Your task to perform on an android device: Go to location settings Image 0: 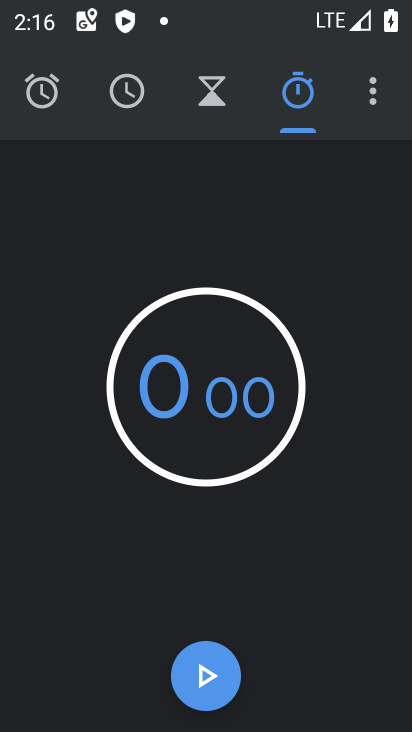
Step 0: press home button
Your task to perform on an android device: Go to location settings Image 1: 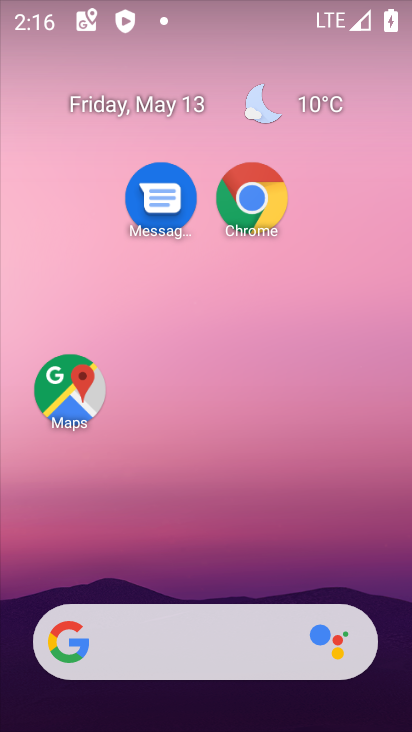
Step 1: drag from (196, 582) to (329, 591)
Your task to perform on an android device: Go to location settings Image 2: 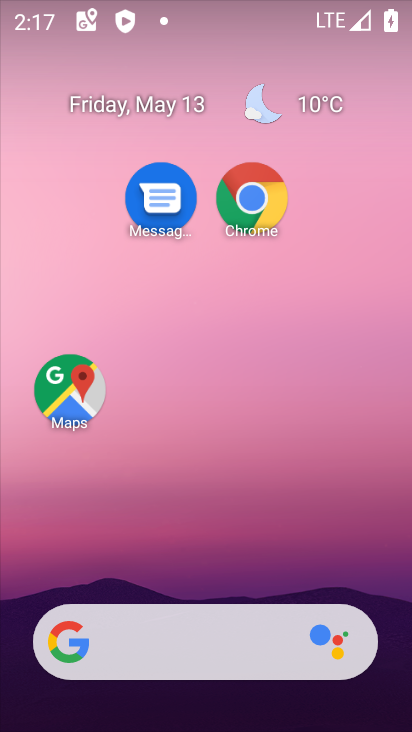
Step 2: drag from (205, 570) to (242, 1)
Your task to perform on an android device: Go to location settings Image 3: 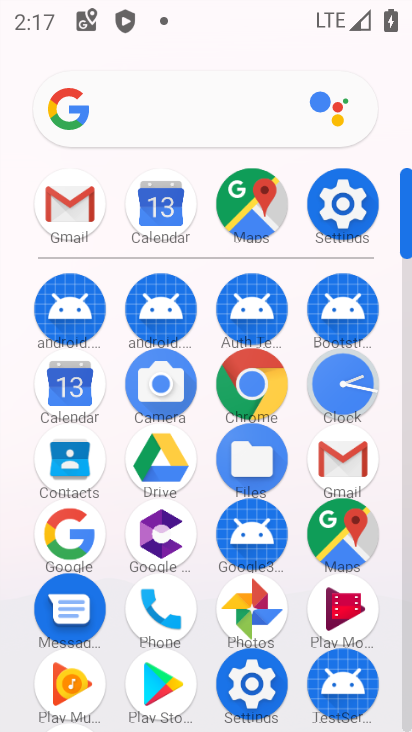
Step 3: click (335, 204)
Your task to perform on an android device: Go to location settings Image 4: 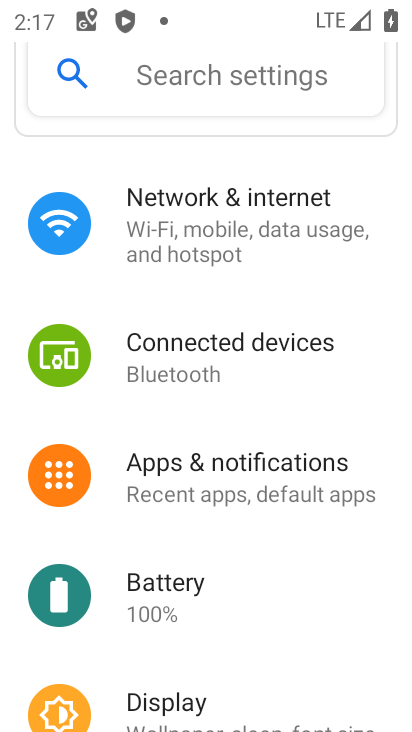
Step 4: drag from (238, 638) to (236, 168)
Your task to perform on an android device: Go to location settings Image 5: 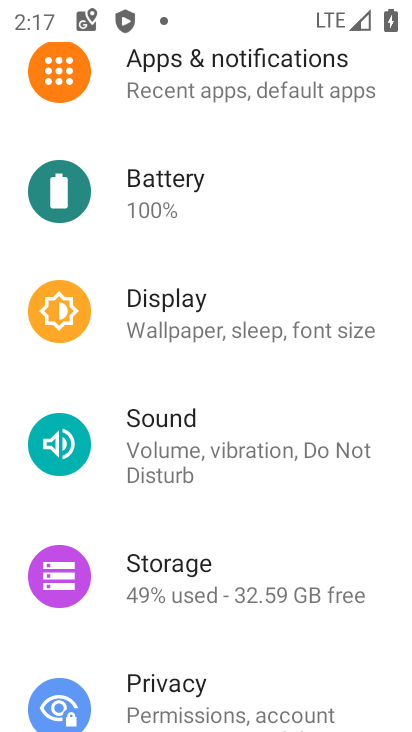
Step 5: drag from (213, 596) to (188, 163)
Your task to perform on an android device: Go to location settings Image 6: 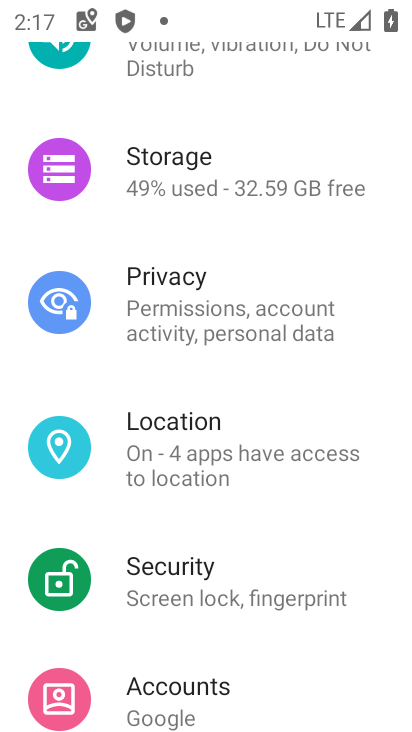
Step 6: click (172, 453)
Your task to perform on an android device: Go to location settings Image 7: 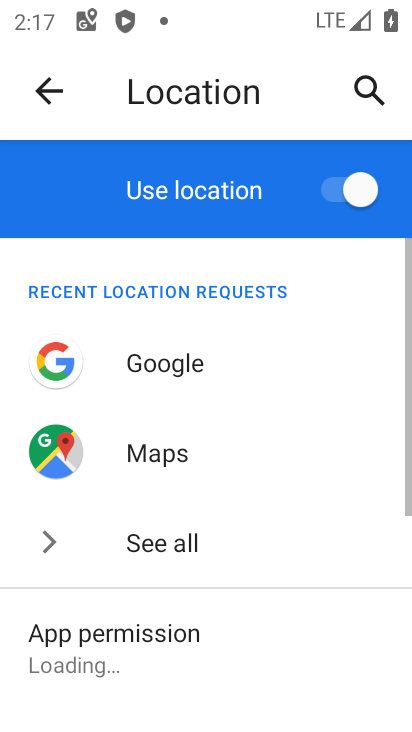
Step 7: drag from (206, 570) to (190, 145)
Your task to perform on an android device: Go to location settings Image 8: 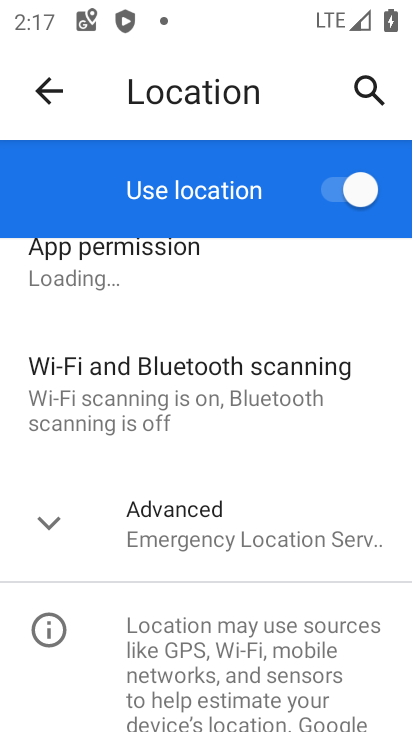
Step 8: click (212, 542)
Your task to perform on an android device: Go to location settings Image 9: 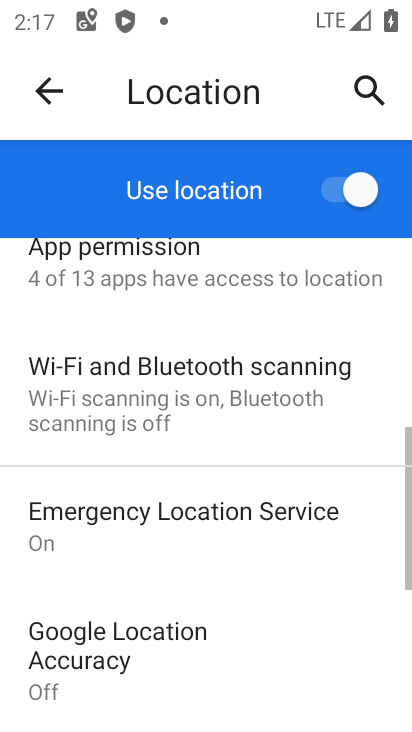
Step 9: task complete